Your task to perform on an android device: Go to ESPN.com Image 0: 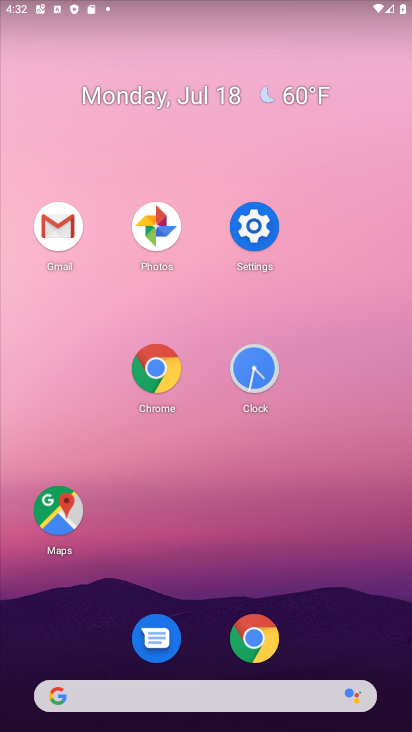
Step 0: click (257, 653)
Your task to perform on an android device: Go to ESPN.com Image 1: 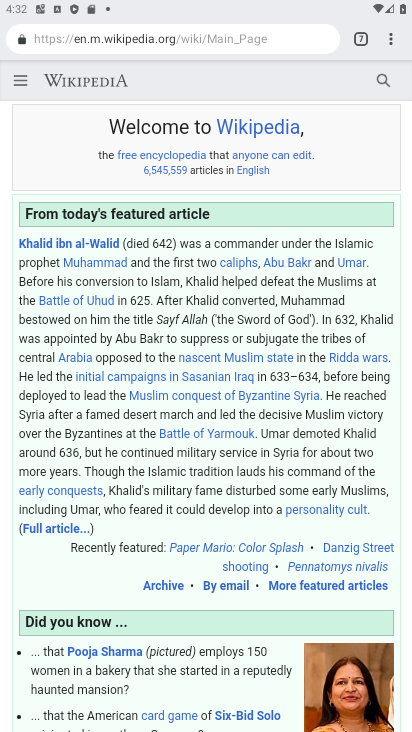
Step 1: click (365, 29)
Your task to perform on an android device: Go to ESPN.com Image 2: 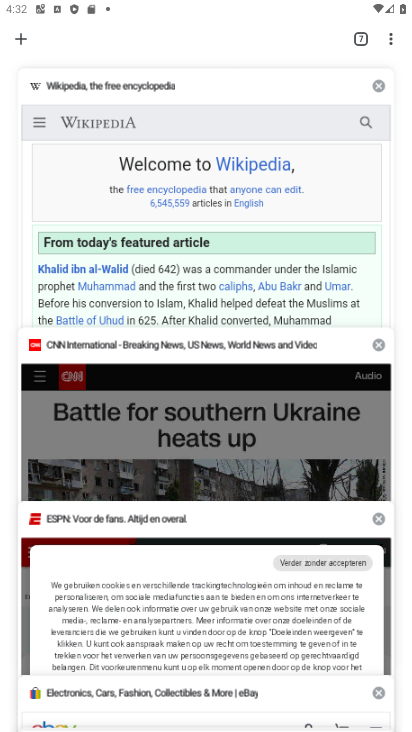
Step 2: drag from (171, 181) to (218, 585)
Your task to perform on an android device: Go to ESPN.com Image 3: 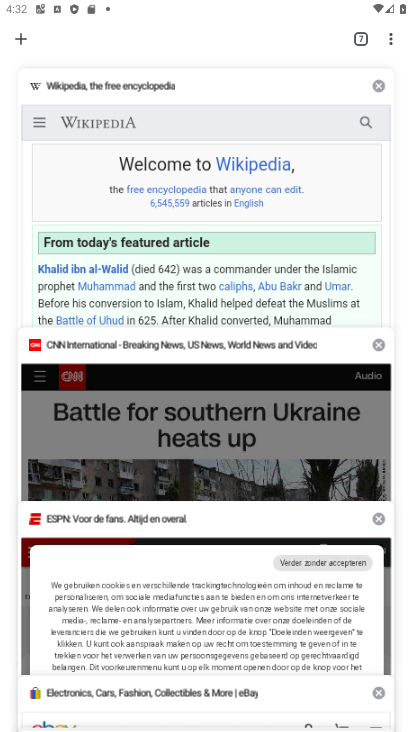
Step 3: drag from (274, 117) to (271, 536)
Your task to perform on an android device: Go to ESPN.com Image 4: 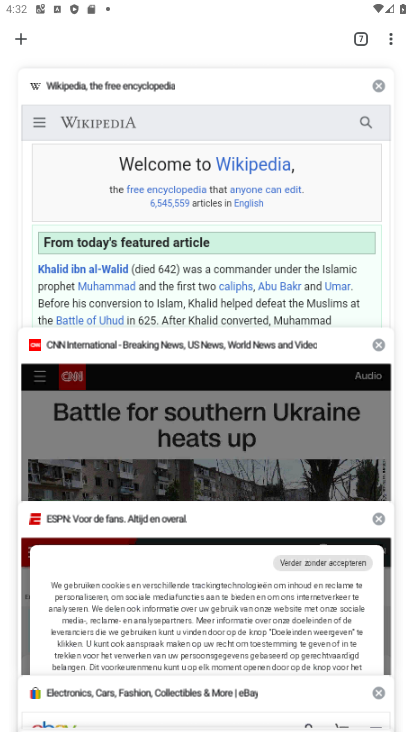
Step 4: click (17, 37)
Your task to perform on an android device: Go to ESPN.com Image 5: 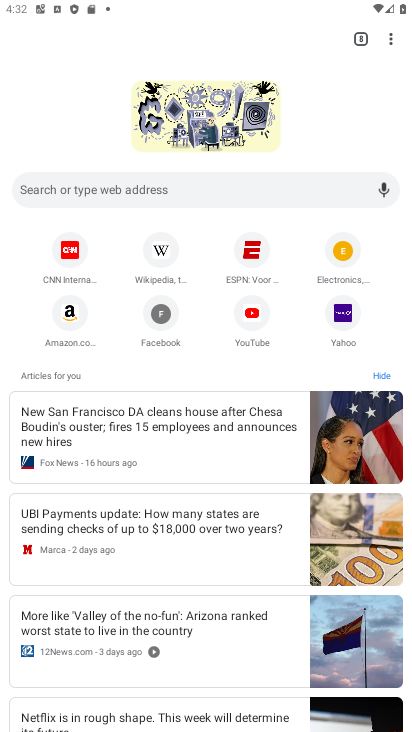
Step 5: click (244, 242)
Your task to perform on an android device: Go to ESPN.com Image 6: 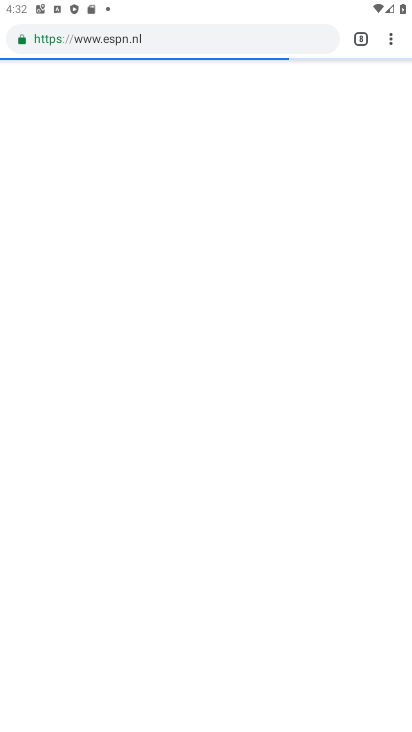
Step 6: task complete